Your task to perform on an android device: turn on priority inbox in the gmail app Image 0: 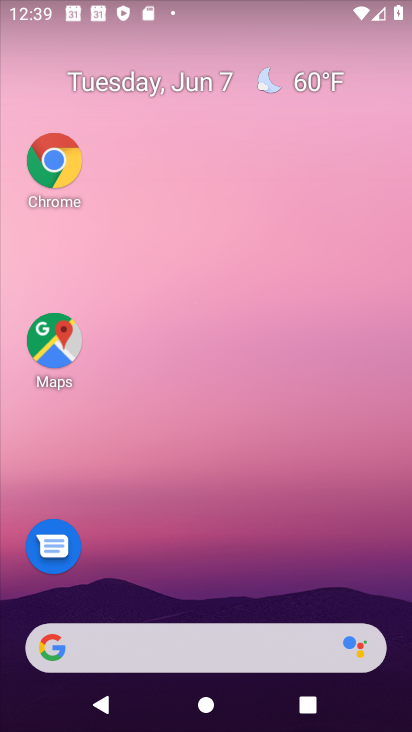
Step 0: click (388, 567)
Your task to perform on an android device: turn on priority inbox in the gmail app Image 1: 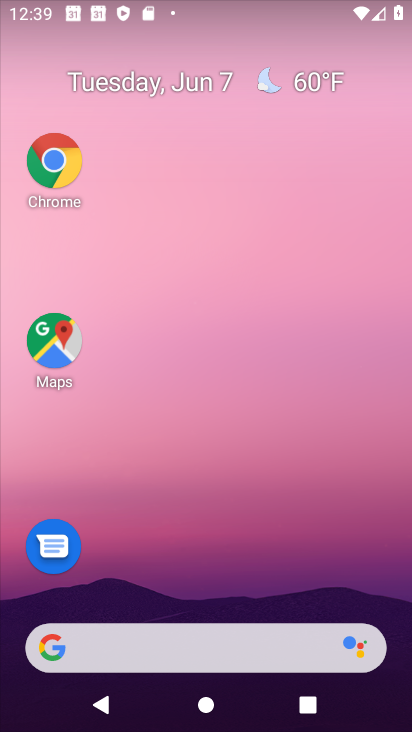
Step 1: drag from (161, 575) to (248, 199)
Your task to perform on an android device: turn on priority inbox in the gmail app Image 2: 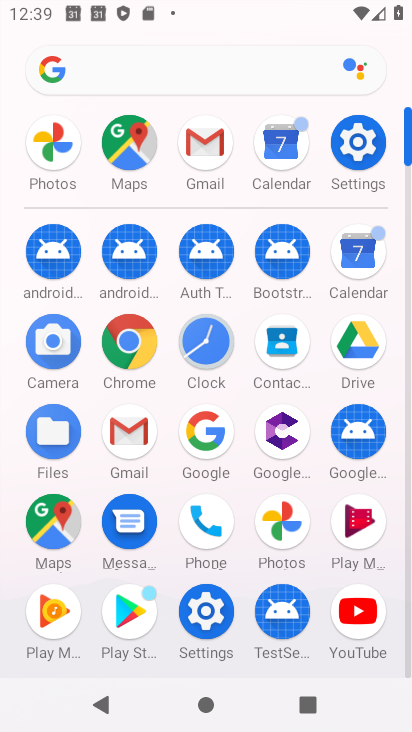
Step 2: click (122, 430)
Your task to perform on an android device: turn on priority inbox in the gmail app Image 3: 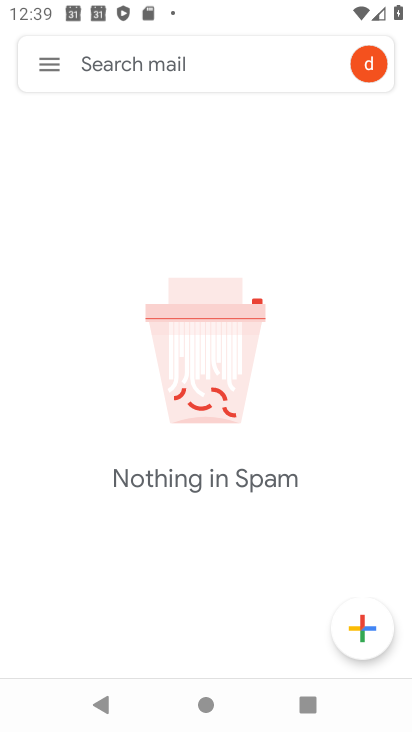
Step 3: click (59, 58)
Your task to perform on an android device: turn on priority inbox in the gmail app Image 4: 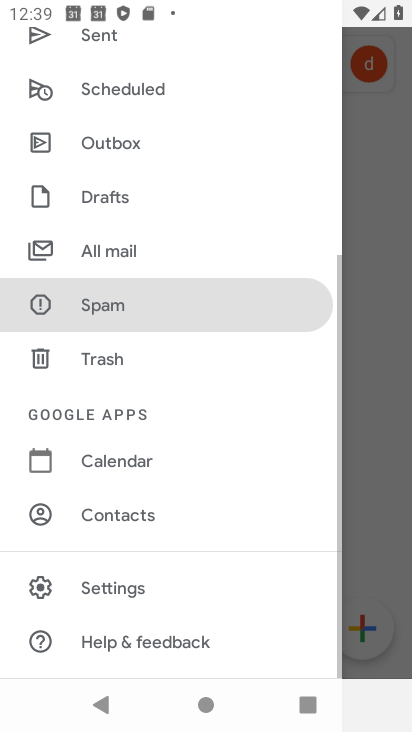
Step 4: click (125, 589)
Your task to perform on an android device: turn on priority inbox in the gmail app Image 5: 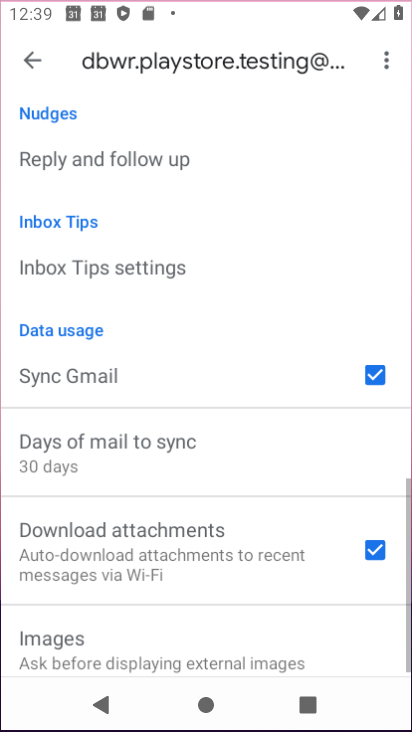
Step 5: drag from (127, 579) to (252, 147)
Your task to perform on an android device: turn on priority inbox in the gmail app Image 6: 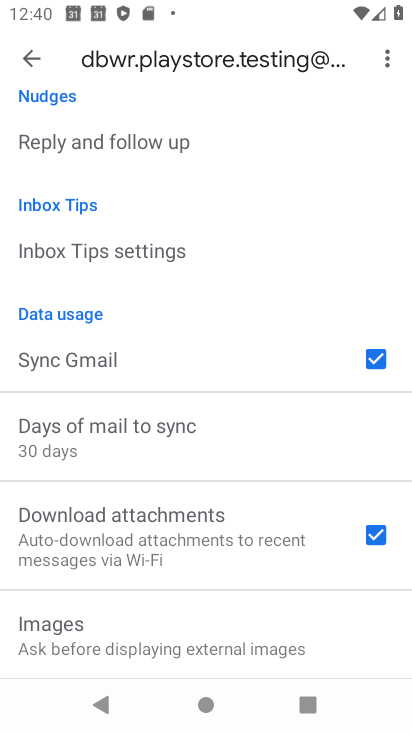
Step 6: drag from (197, 332) to (250, 714)
Your task to perform on an android device: turn on priority inbox in the gmail app Image 7: 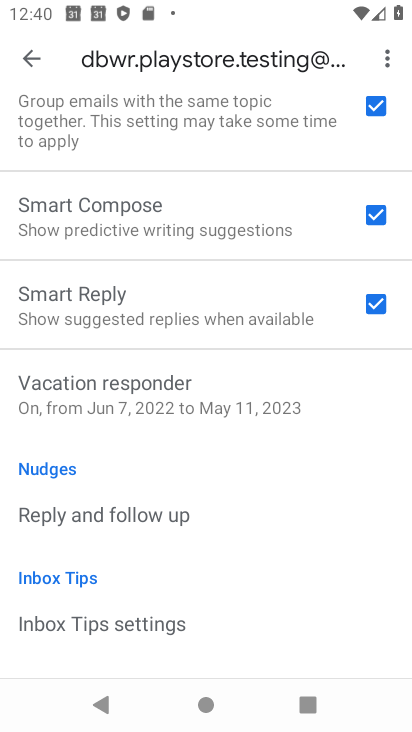
Step 7: drag from (175, 324) to (297, 726)
Your task to perform on an android device: turn on priority inbox in the gmail app Image 8: 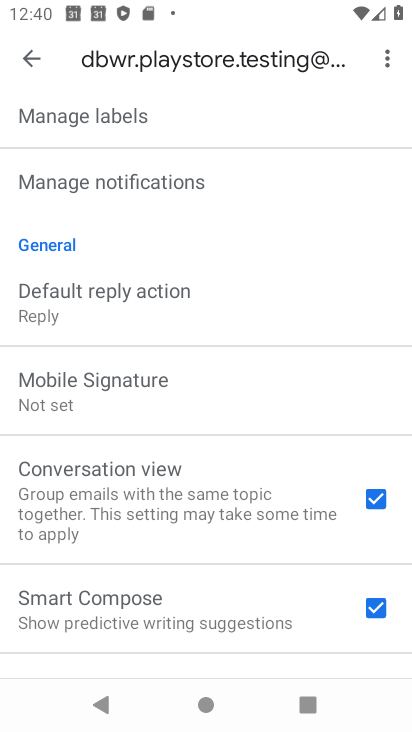
Step 8: drag from (216, 386) to (288, 722)
Your task to perform on an android device: turn on priority inbox in the gmail app Image 9: 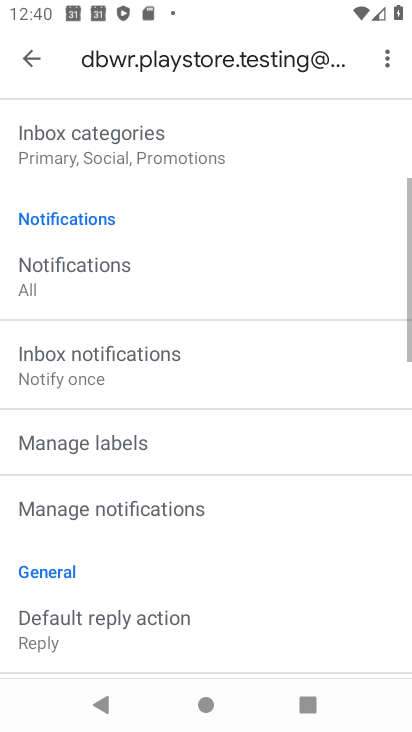
Step 9: drag from (157, 275) to (210, 719)
Your task to perform on an android device: turn on priority inbox in the gmail app Image 10: 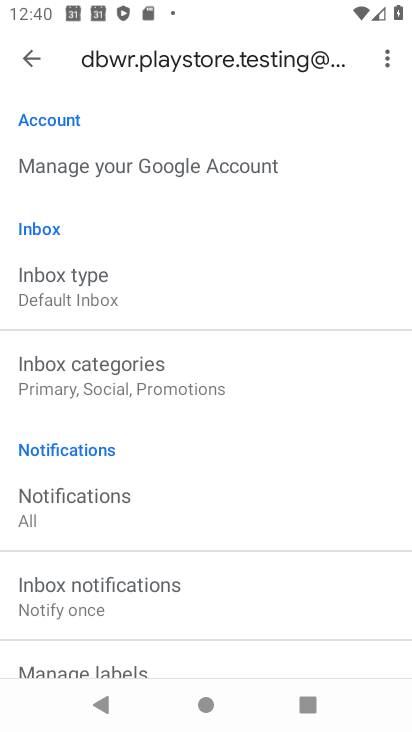
Step 10: click (107, 279)
Your task to perform on an android device: turn on priority inbox in the gmail app Image 11: 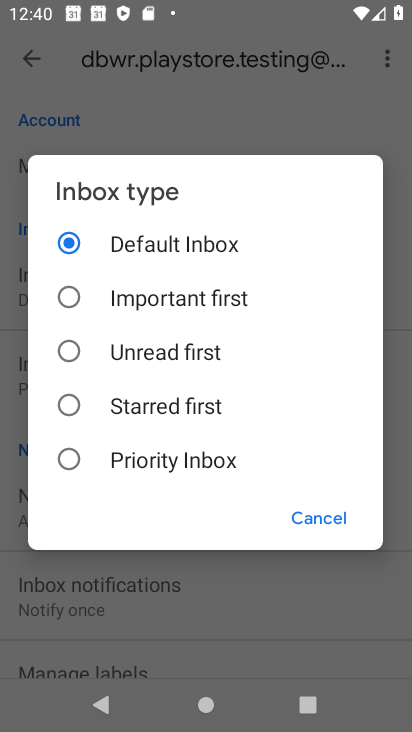
Step 11: click (127, 490)
Your task to perform on an android device: turn on priority inbox in the gmail app Image 12: 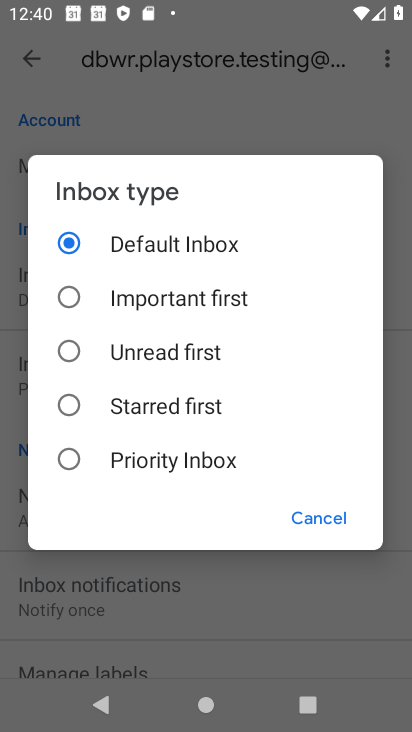
Step 12: click (101, 455)
Your task to perform on an android device: turn on priority inbox in the gmail app Image 13: 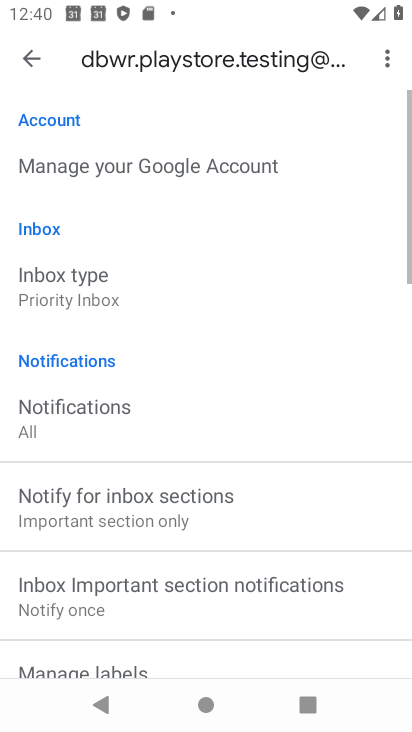
Step 13: task complete